Your task to perform on an android device: Go to ESPN.com Image 0: 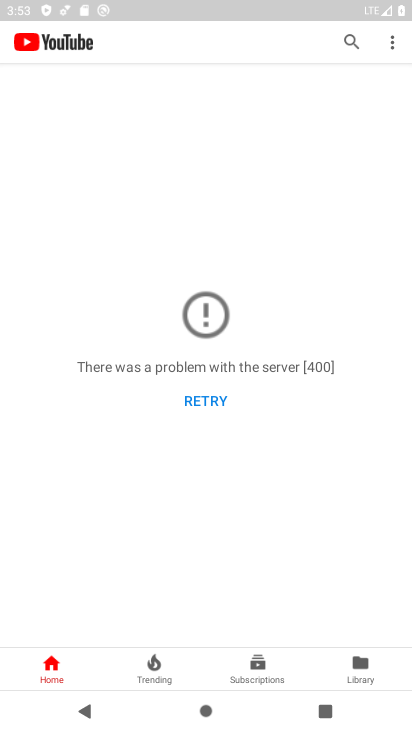
Step 0: press home button
Your task to perform on an android device: Go to ESPN.com Image 1: 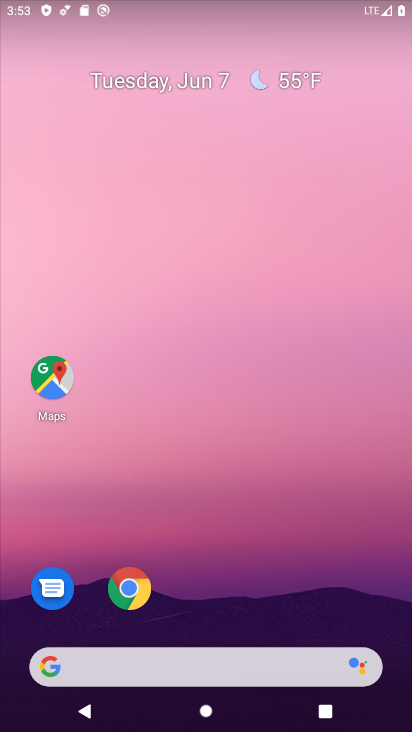
Step 1: click (132, 617)
Your task to perform on an android device: Go to ESPN.com Image 2: 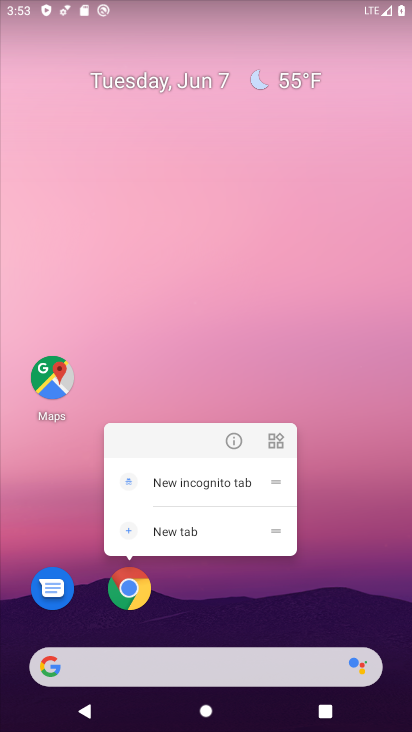
Step 2: click (133, 610)
Your task to perform on an android device: Go to ESPN.com Image 3: 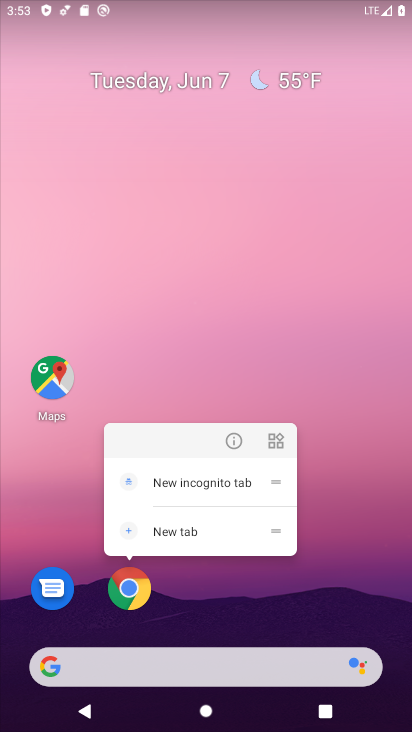
Step 3: click (133, 595)
Your task to perform on an android device: Go to ESPN.com Image 4: 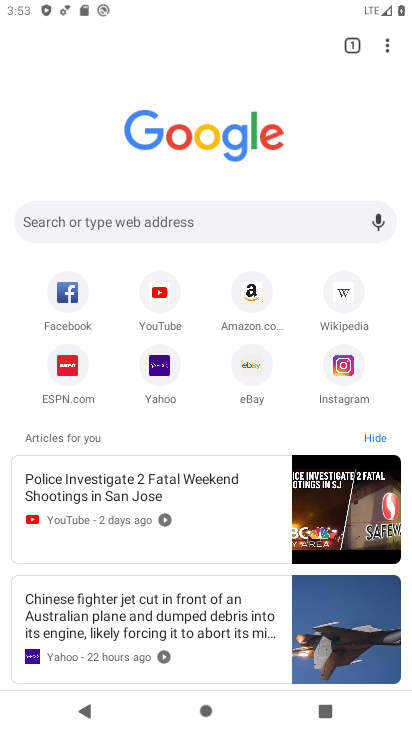
Step 4: click (55, 363)
Your task to perform on an android device: Go to ESPN.com Image 5: 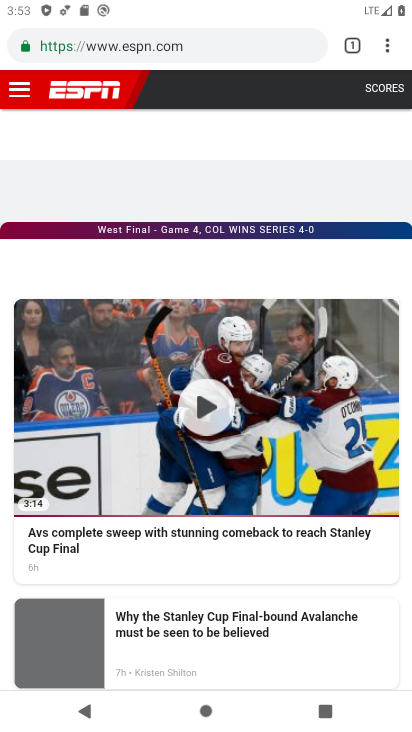
Step 5: task complete